Your task to perform on an android device: Go to Amazon Image 0: 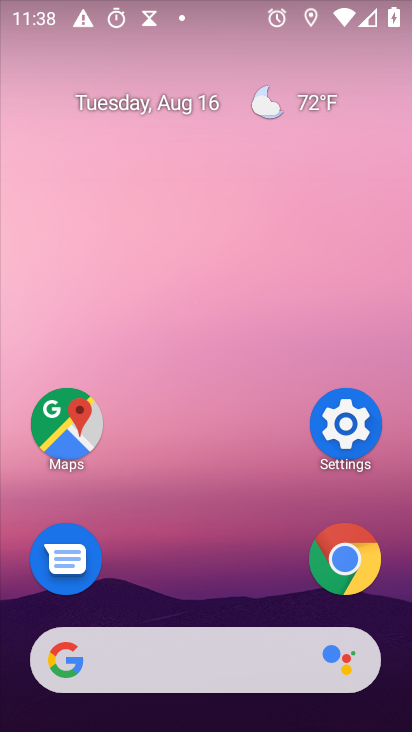
Step 0: press home button
Your task to perform on an android device: Go to Amazon Image 1: 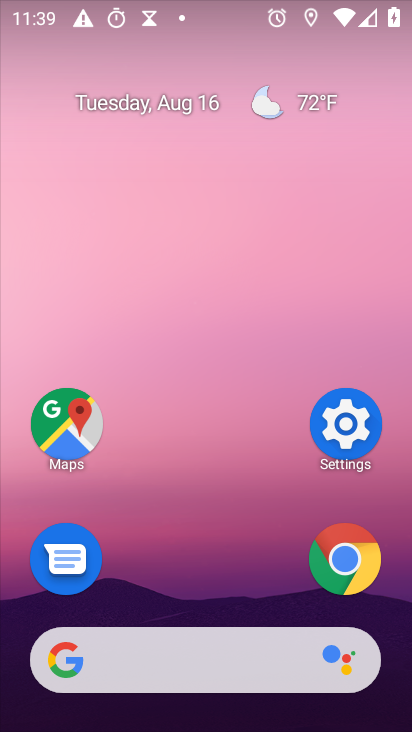
Step 1: click (350, 554)
Your task to perform on an android device: Go to Amazon Image 2: 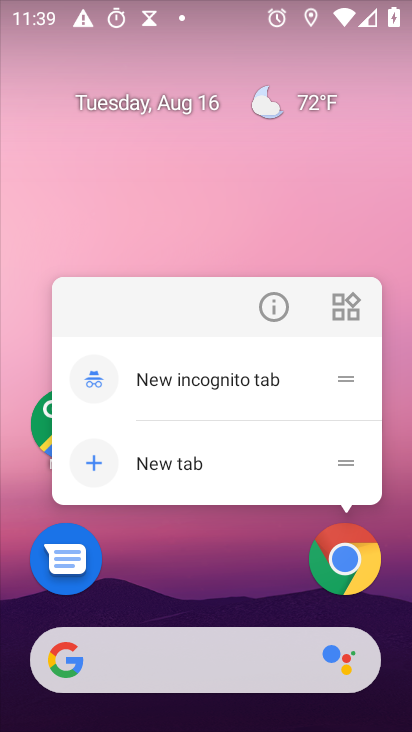
Step 2: click (354, 560)
Your task to perform on an android device: Go to Amazon Image 3: 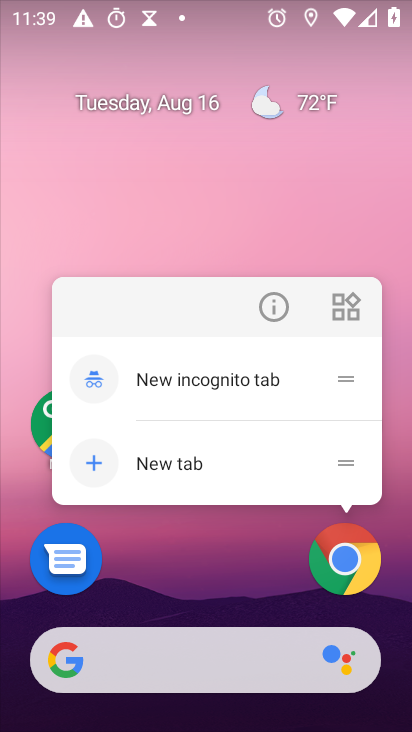
Step 3: click (355, 564)
Your task to perform on an android device: Go to Amazon Image 4: 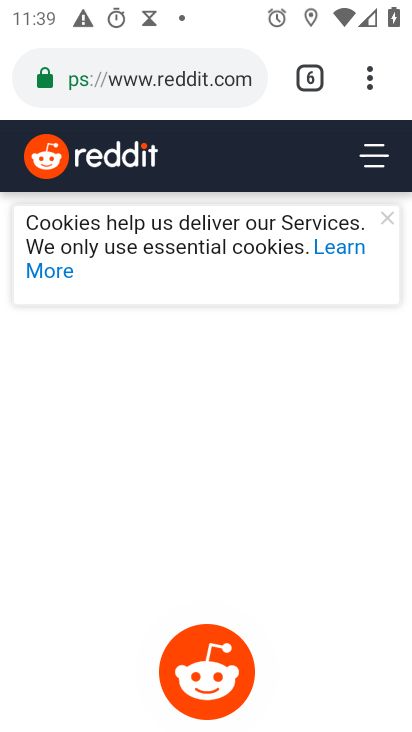
Step 4: drag from (371, 73) to (176, 154)
Your task to perform on an android device: Go to Amazon Image 5: 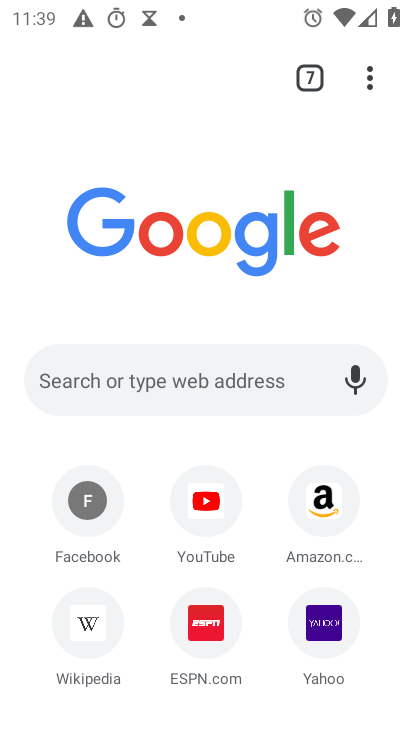
Step 5: click (314, 498)
Your task to perform on an android device: Go to Amazon Image 6: 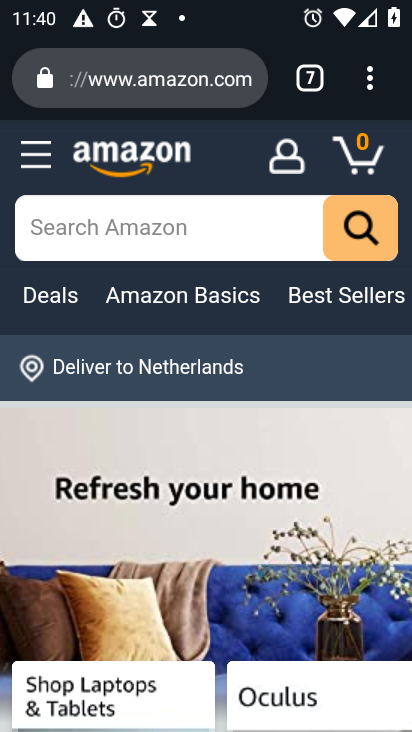
Step 6: task complete